Your task to perform on an android device: delete location history Image 0: 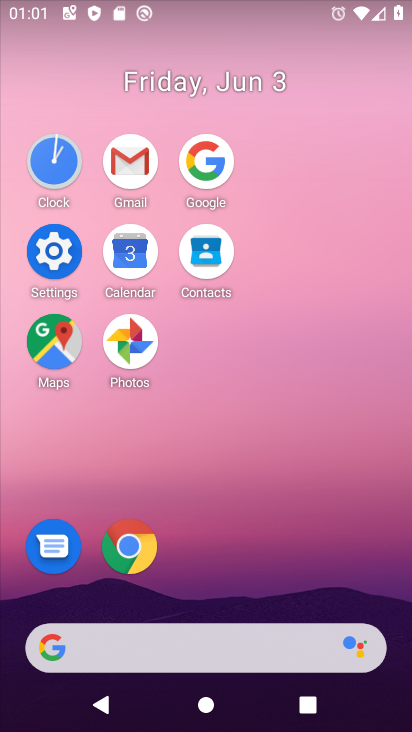
Step 0: click (72, 266)
Your task to perform on an android device: delete location history Image 1: 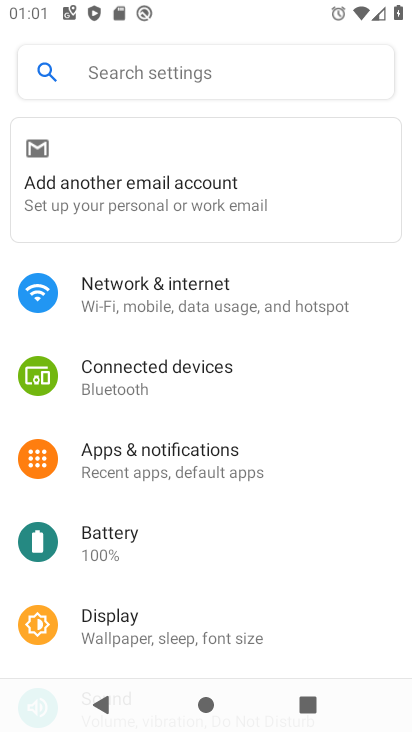
Step 1: drag from (238, 612) to (308, 136)
Your task to perform on an android device: delete location history Image 2: 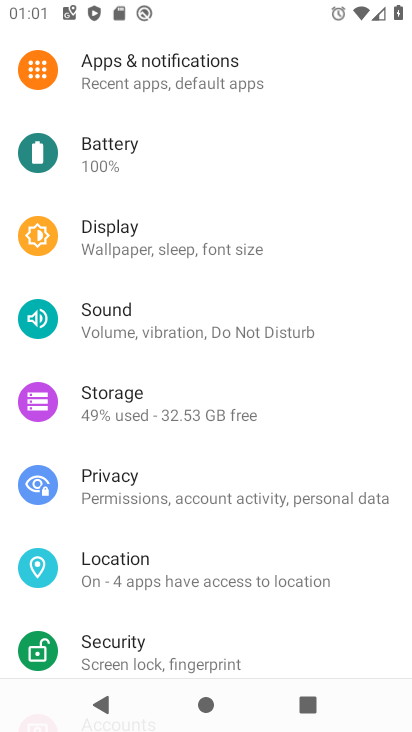
Step 2: drag from (186, 579) to (261, 217)
Your task to perform on an android device: delete location history Image 3: 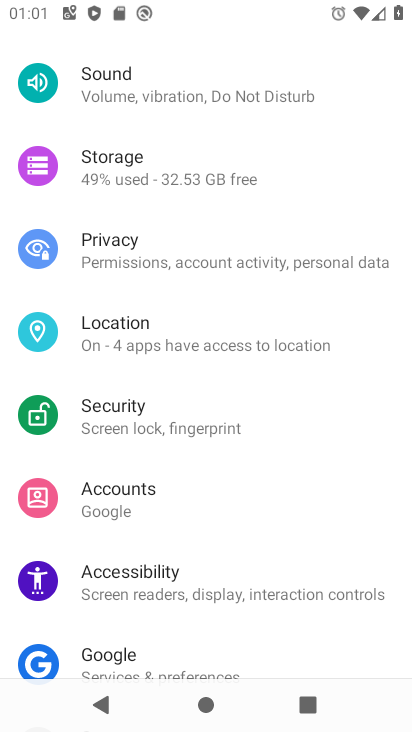
Step 3: click (211, 333)
Your task to perform on an android device: delete location history Image 4: 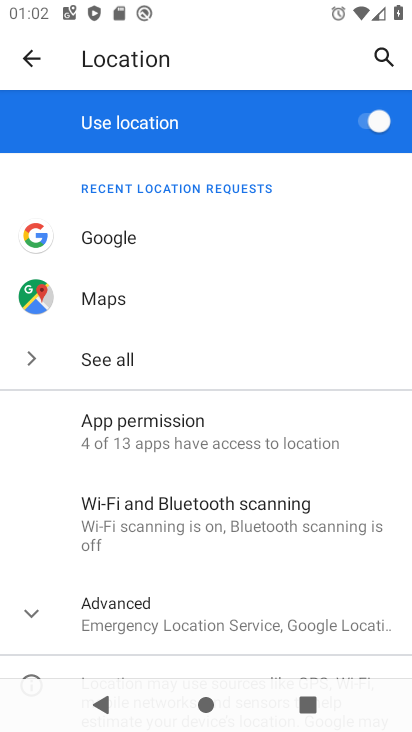
Step 4: drag from (278, 586) to (296, 223)
Your task to perform on an android device: delete location history Image 5: 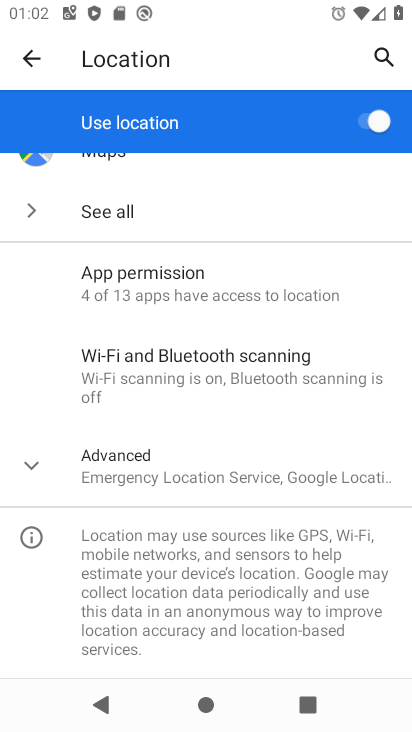
Step 5: click (217, 461)
Your task to perform on an android device: delete location history Image 6: 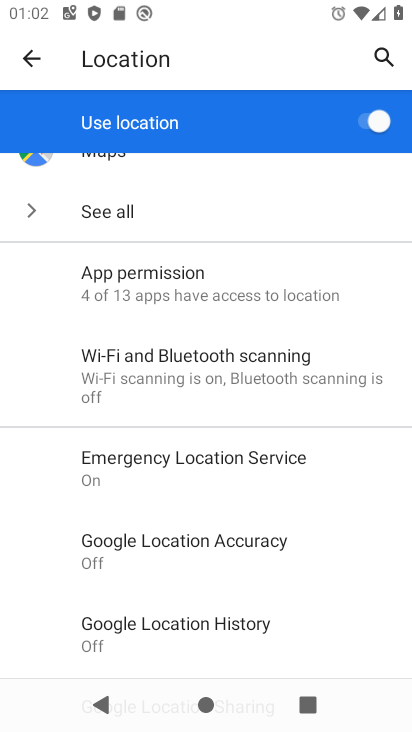
Step 6: click (267, 611)
Your task to perform on an android device: delete location history Image 7: 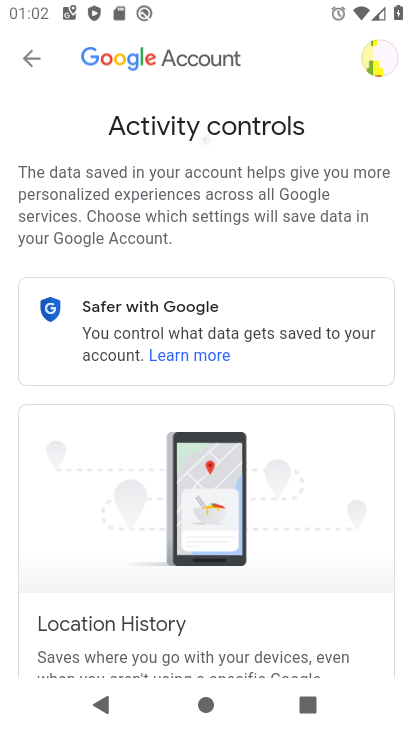
Step 7: drag from (289, 529) to (284, 158)
Your task to perform on an android device: delete location history Image 8: 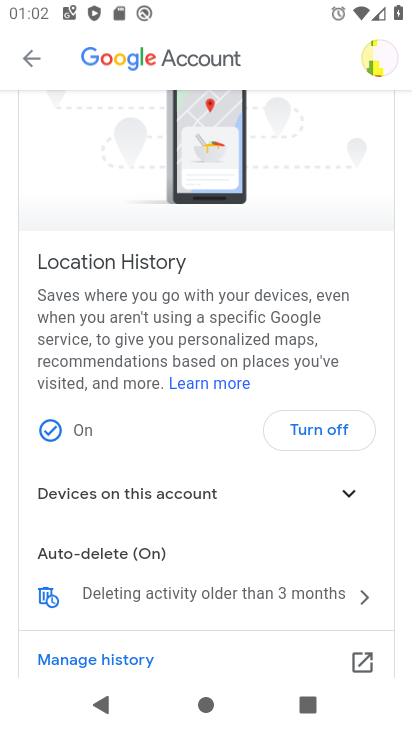
Step 8: click (310, 594)
Your task to perform on an android device: delete location history Image 9: 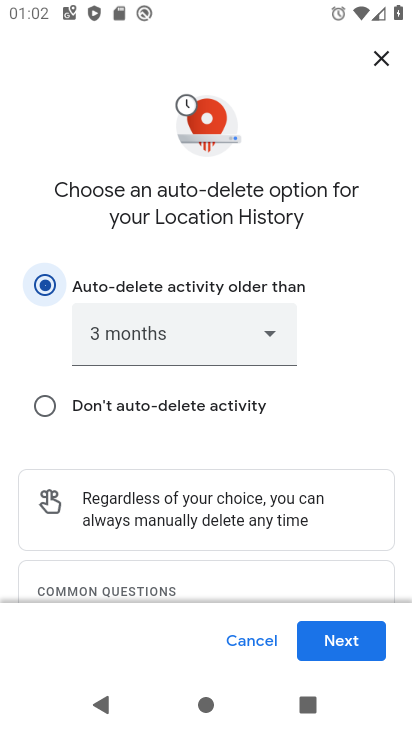
Step 9: drag from (327, 507) to (331, 191)
Your task to perform on an android device: delete location history Image 10: 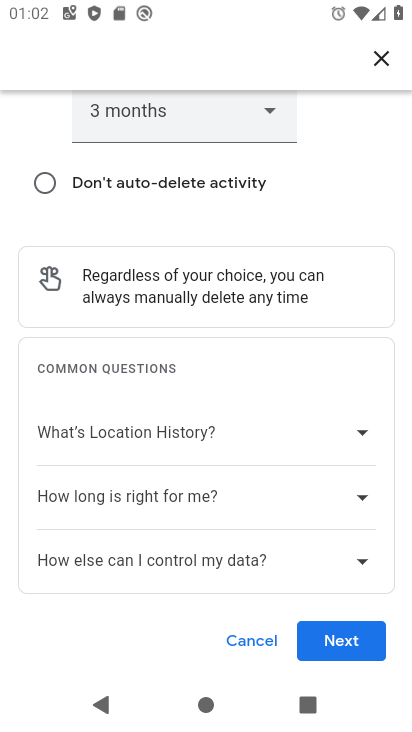
Step 10: click (344, 644)
Your task to perform on an android device: delete location history Image 11: 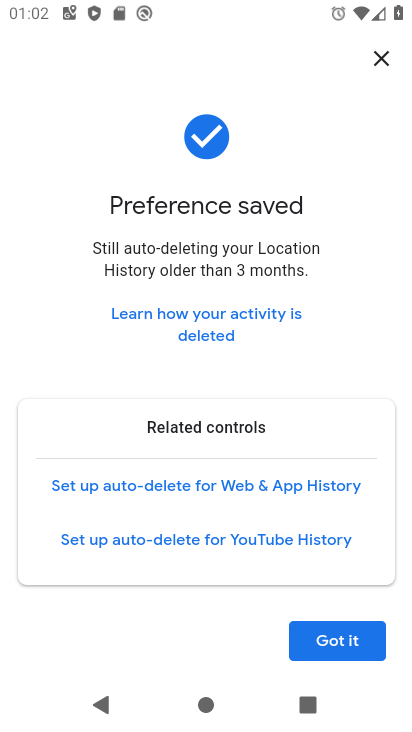
Step 11: click (360, 640)
Your task to perform on an android device: delete location history Image 12: 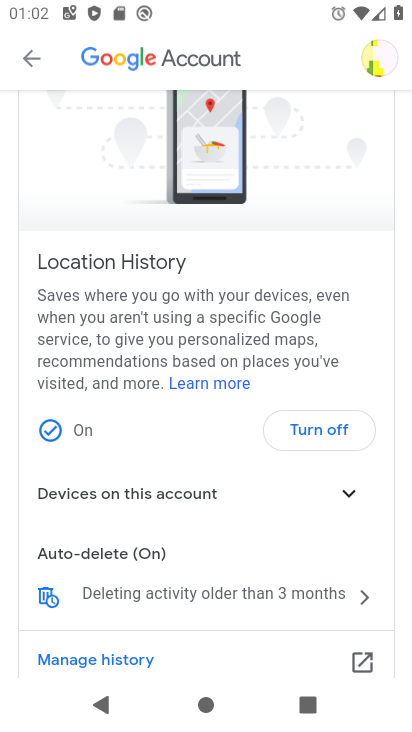
Step 12: task complete